Your task to perform on an android device: turn on data saver in the chrome app Image 0: 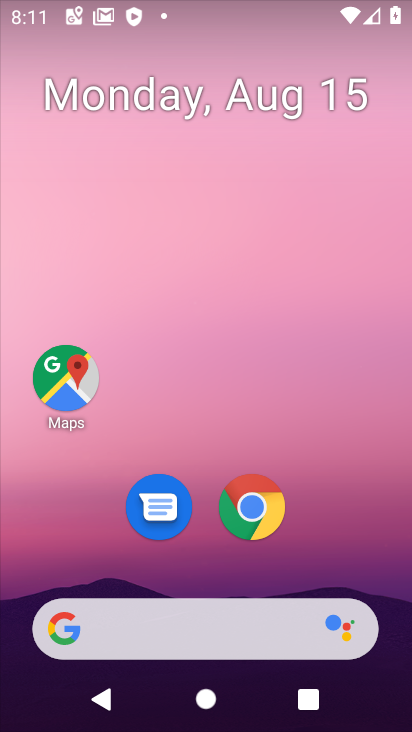
Step 0: click (254, 513)
Your task to perform on an android device: turn on data saver in the chrome app Image 1: 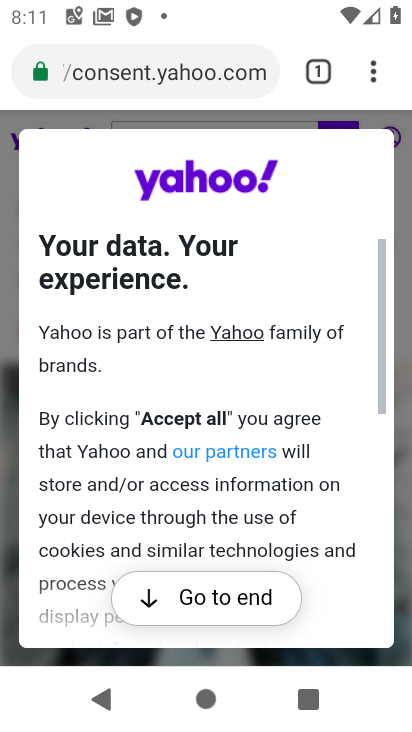
Step 1: click (372, 78)
Your task to perform on an android device: turn on data saver in the chrome app Image 2: 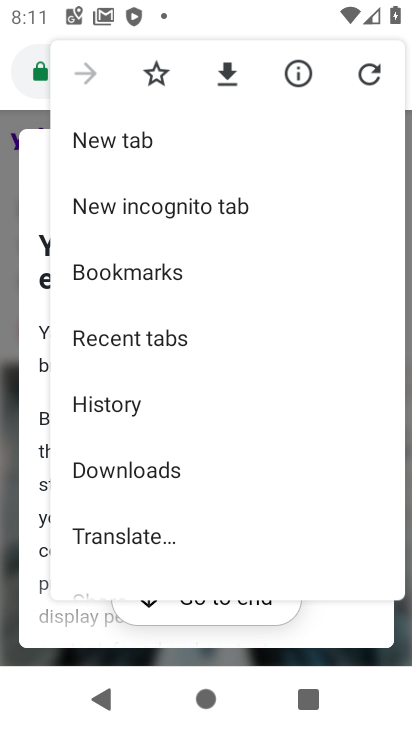
Step 2: drag from (200, 480) to (205, 56)
Your task to perform on an android device: turn on data saver in the chrome app Image 3: 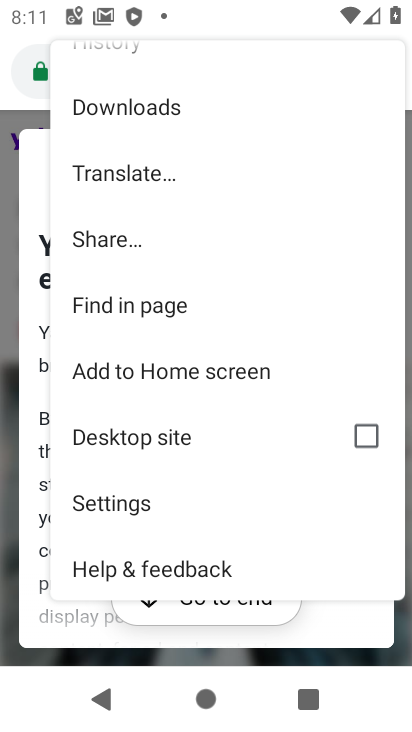
Step 3: click (142, 507)
Your task to perform on an android device: turn on data saver in the chrome app Image 4: 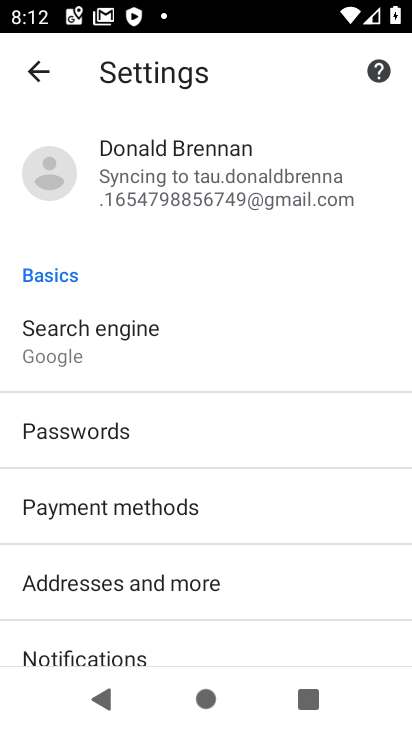
Step 4: drag from (142, 507) to (127, 190)
Your task to perform on an android device: turn on data saver in the chrome app Image 5: 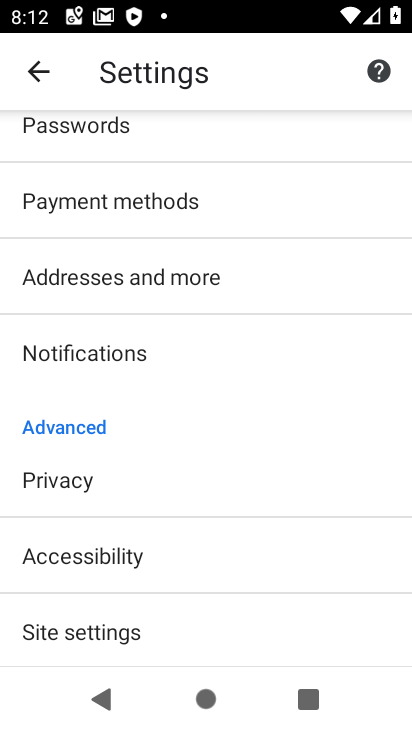
Step 5: drag from (144, 657) to (81, 393)
Your task to perform on an android device: turn on data saver in the chrome app Image 6: 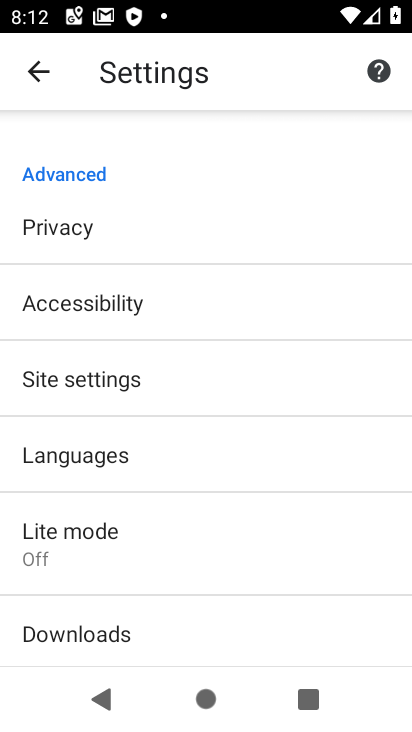
Step 6: click (187, 547)
Your task to perform on an android device: turn on data saver in the chrome app Image 7: 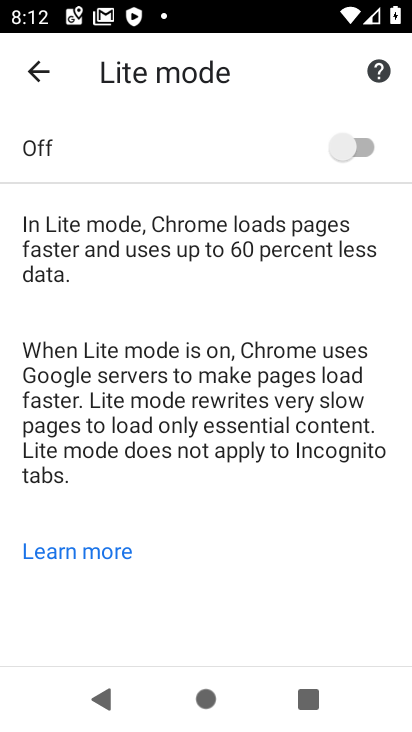
Step 7: click (363, 137)
Your task to perform on an android device: turn on data saver in the chrome app Image 8: 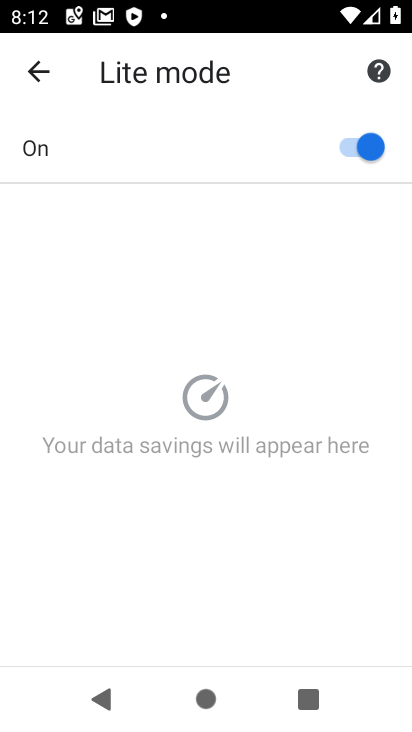
Step 8: task complete